Your task to perform on an android device: turn on data saver in the chrome app Image 0: 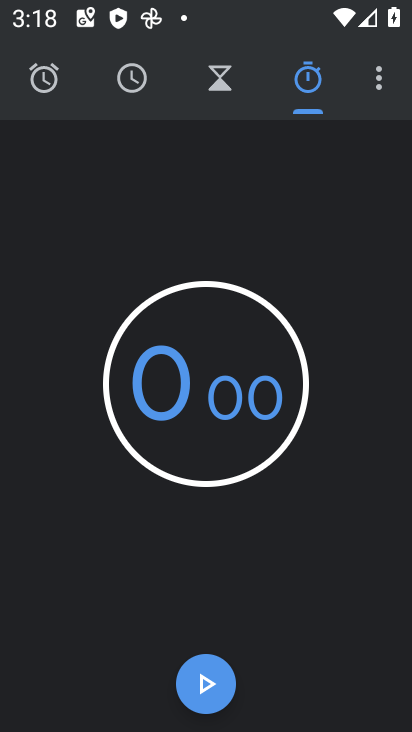
Step 0: press home button
Your task to perform on an android device: turn on data saver in the chrome app Image 1: 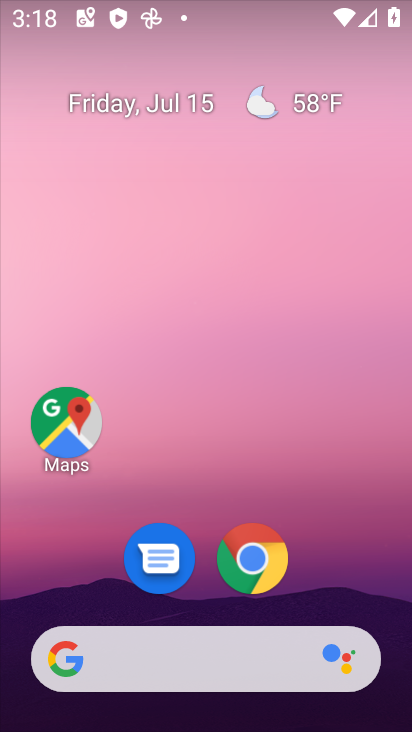
Step 1: drag from (356, 584) to (353, 75)
Your task to perform on an android device: turn on data saver in the chrome app Image 2: 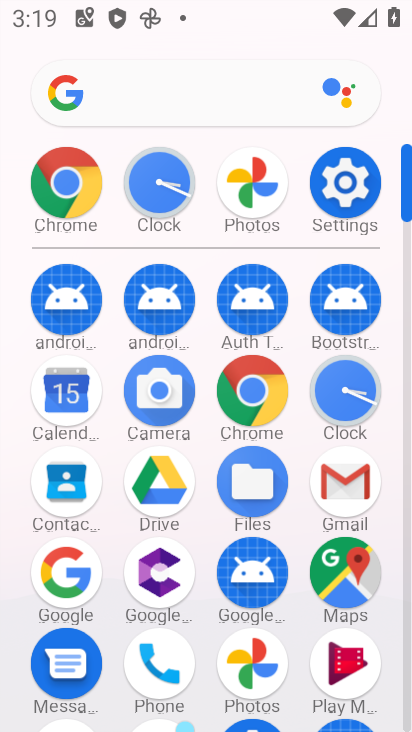
Step 2: click (275, 387)
Your task to perform on an android device: turn on data saver in the chrome app Image 3: 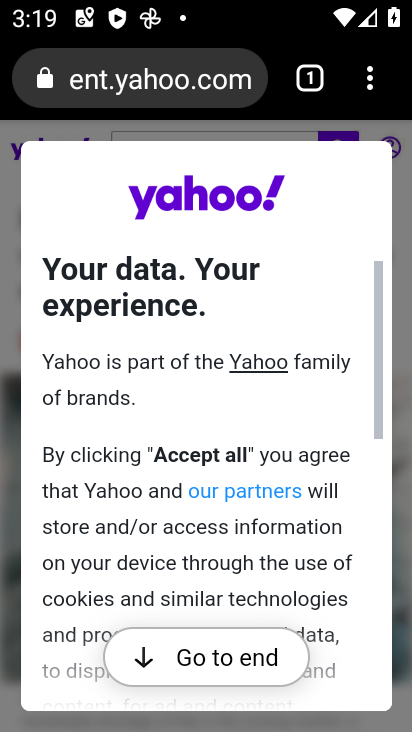
Step 3: click (370, 93)
Your task to perform on an android device: turn on data saver in the chrome app Image 4: 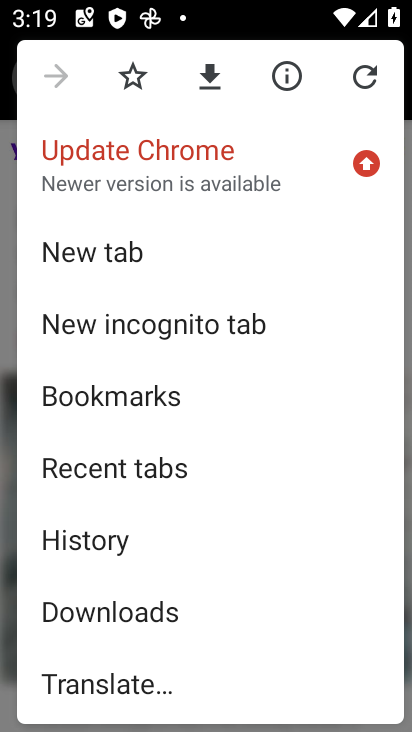
Step 4: drag from (348, 445) to (347, 359)
Your task to perform on an android device: turn on data saver in the chrome app Image 5: 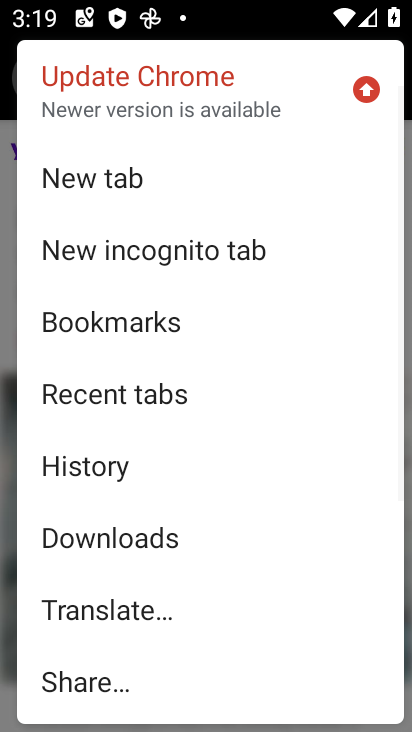
Step 5: drag from (348, 464) to (351, 393)
Your task to perform on an android device: turn on data saver in the chrome app Image 6: 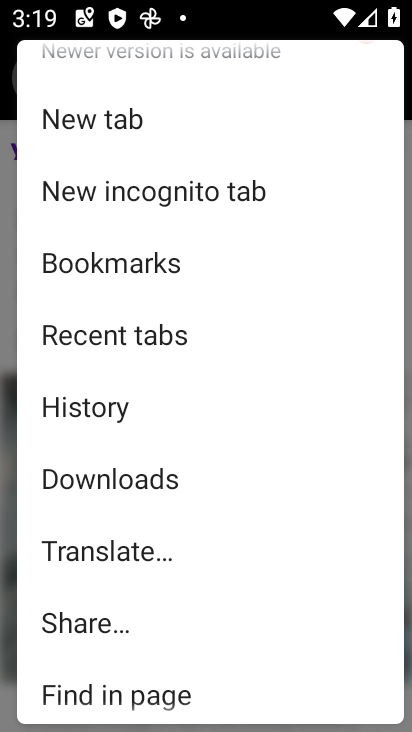
Step 6: drag from (342, 471) to (345, 373)
Your task to perform on an android device: turn on data saver in the chrome app Image 7: 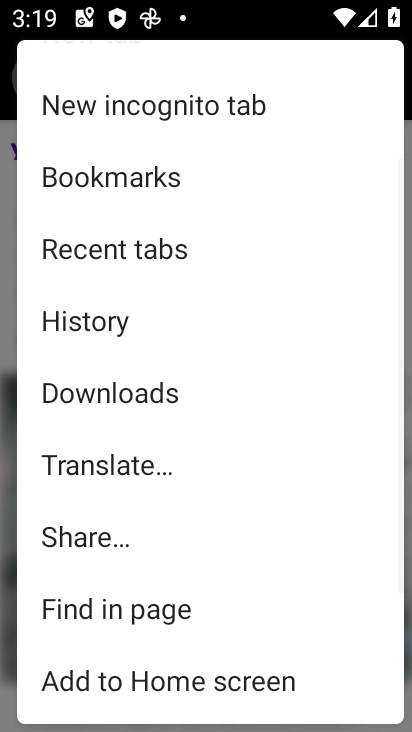
Step 7: drag from (324, 462) to (320, 342)
Your task to perform on an android device: turn on data saver in the chrome app Image 8: 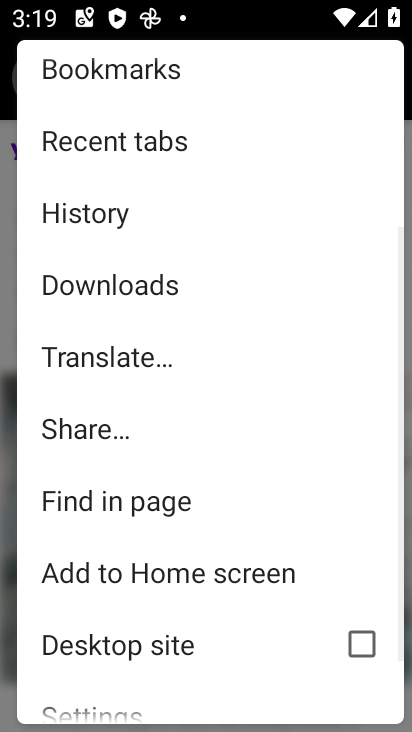
Step 8: drag from (302, 490) to (302, 362)
Your task to perform on an android device: turn on data saver in the chrome app Image 9: 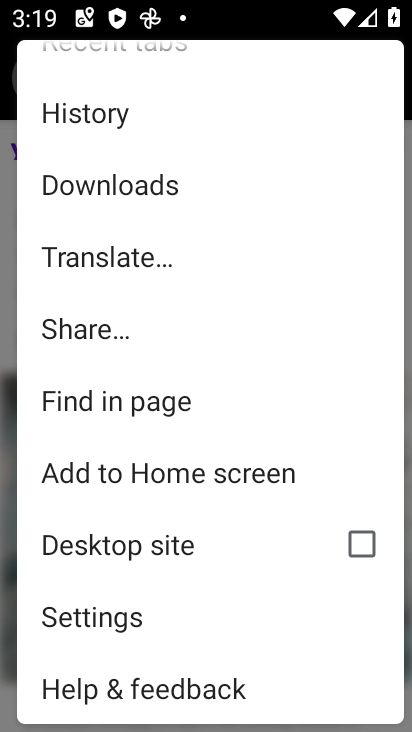
Step 9: drag from (302, 455) to (309, 338)
Your task to perform on an android device: turn on data saver in the chrome app Image 10: 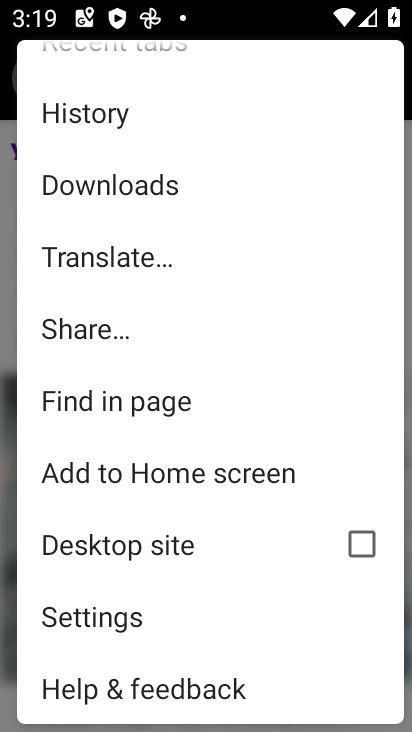
Step 10: click (179, 605)
Your task to perform on an android device: turn on data saver in the chrome app Image 11: 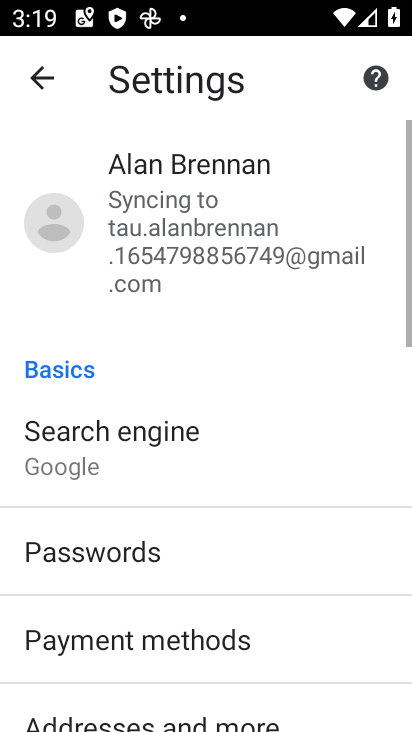
Step 11: drag from (304, 555) to (321, 450)
Your task to perform on an android device: turn on data saver in the chrome app Image 12: 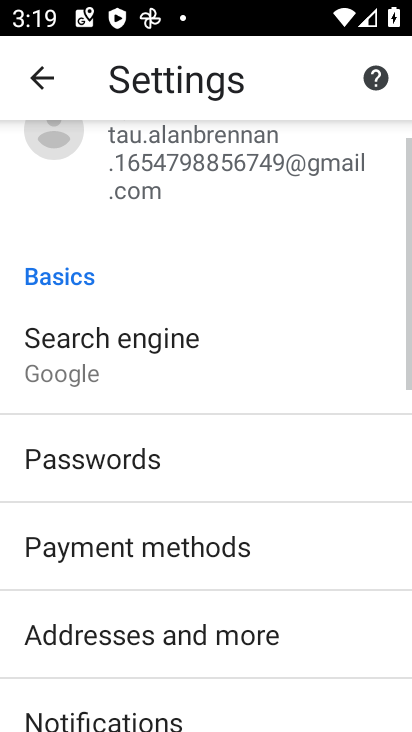
Step 12: drag from (321, 550) to (333, 463)
Your task to perform on an android device: turn on data saver in the chrome app Image 13: 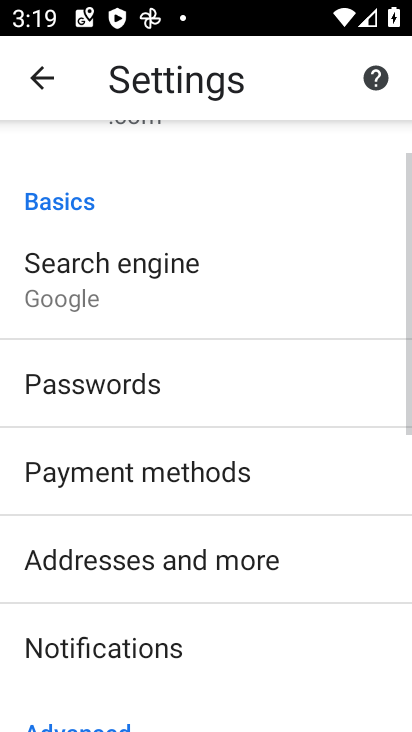
Step 13: drag from (328, 559) to (338, 464)
Your task to perform on an android device: turn on data saver in the chrome app Image 14: 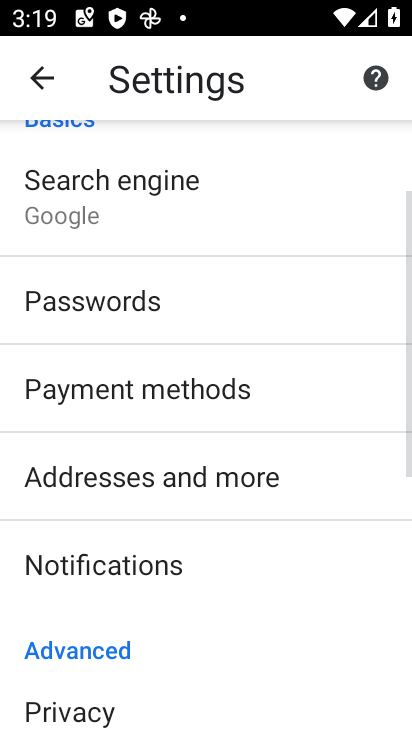
Step 14: drag from (335, 563) to (338, 453)
Your task to perform on an android device: turn on data saver in the chrome app Image 15: 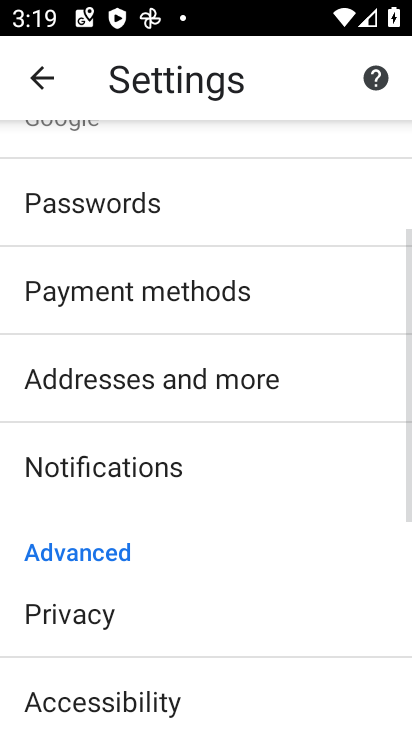
Step 15: drag from (323, 574) to (336, 477)
Your task to perform on an android device: turn on data saver in the chrome app Image 16: 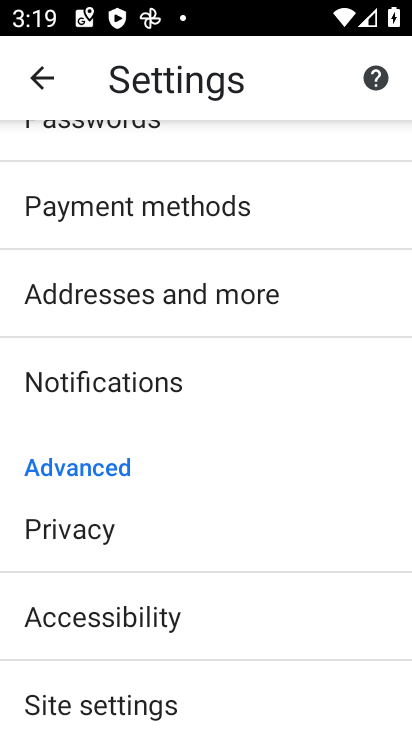
Step 16: drag from (331, 594) to (339, 493)
Your task to perform on an android device: turn on data saver in the chrome app Image 17: 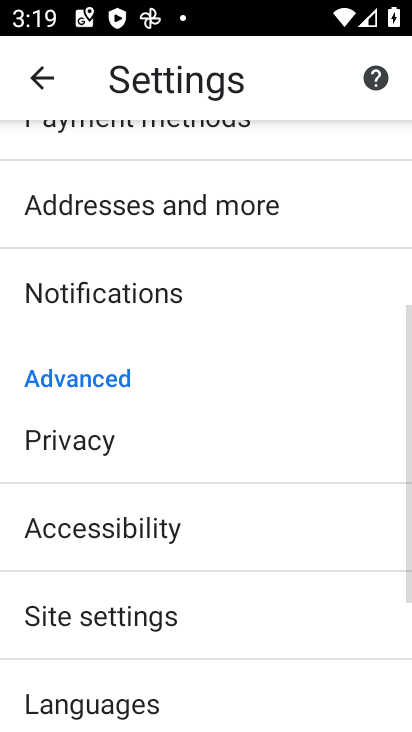
Step 17: drag from (307, 583) to (311, 480)
Your task to perform on an android device: turn on data saver in the chrome app Image 18: 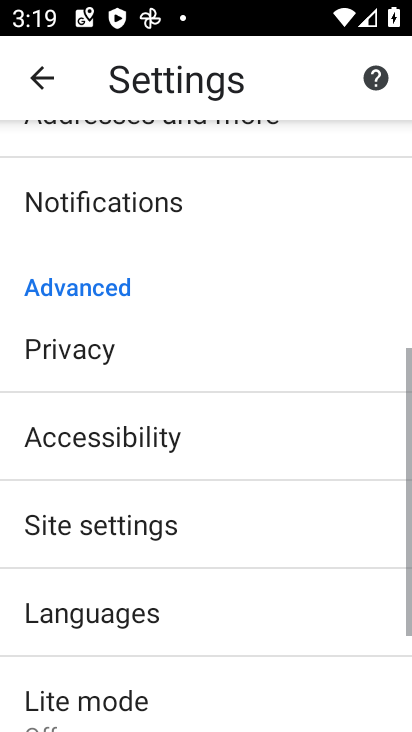
Step 18: drag from (308, 597) to (318, 485)
Your task to perform on an android device: turn on data saver in the chrome app Image 19: 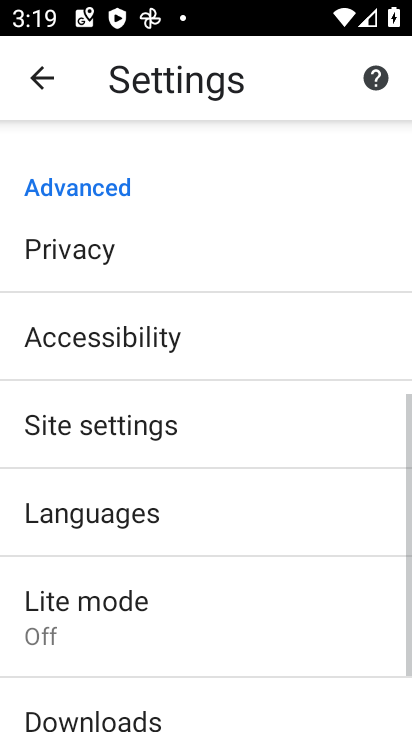
Step 19: drag from (305, 572) to (305, 458)
Your task to perform on an android device: turn on data saver in the chrome app Image 20: 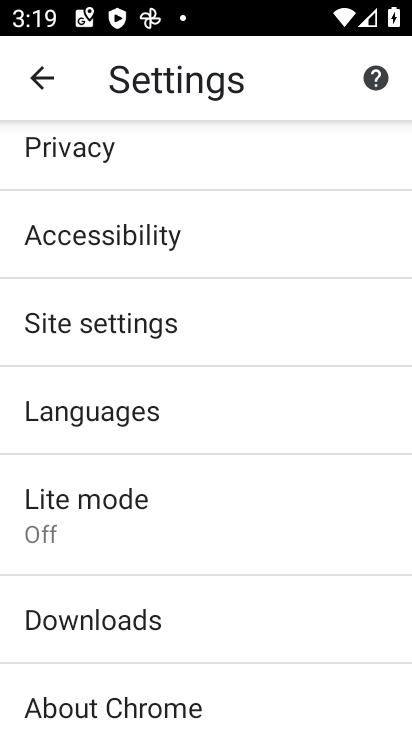
Step 20: click (289, 527)
Your task to perform on an android device: turn on data saver in the chrome app Image 21: 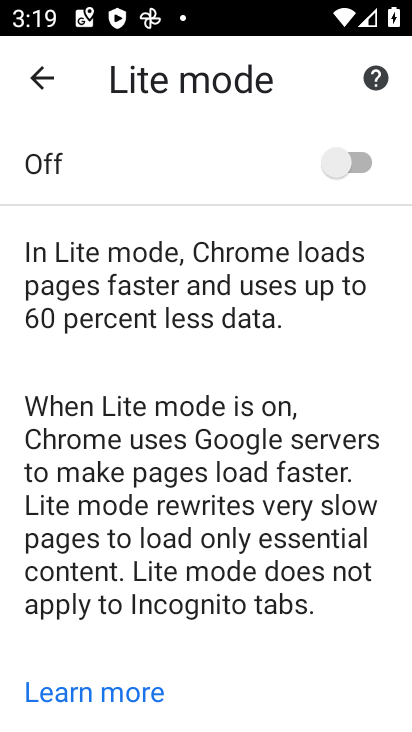
Step 21: click (344, 171)
Your task to perform on an android device: turn on data saver in the chrome app Image 22: 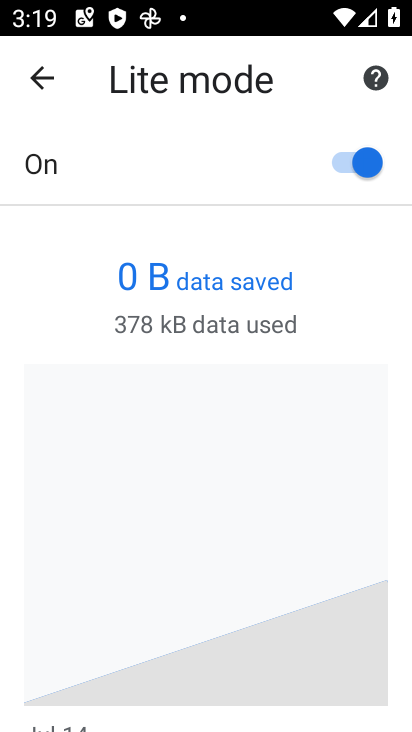
Step 22: task complete